Your task to perform on an android device: What is the recent news? Image 0: 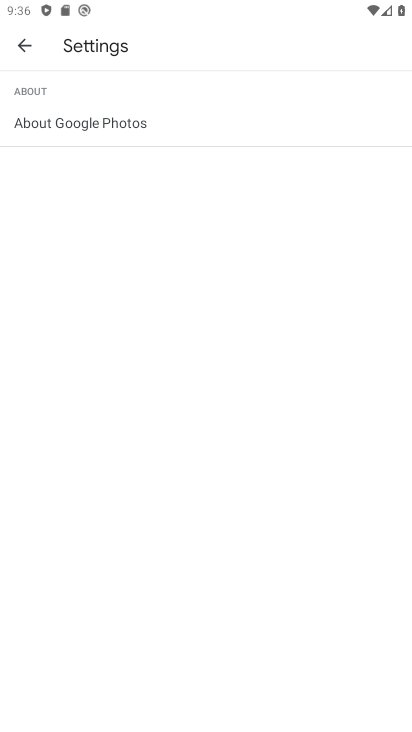
Step 0: press home button
Your task to perform on an android device: What is the recent news? Image 1: 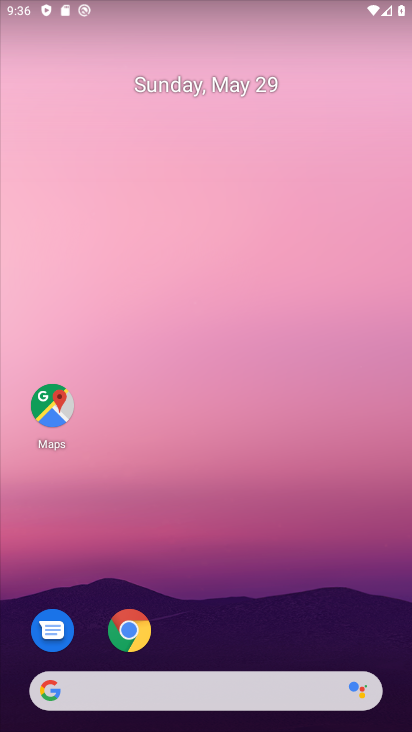
Step 1: task complete